Your task to perform on an android device: open a bookmark in the chrome app Image 0: 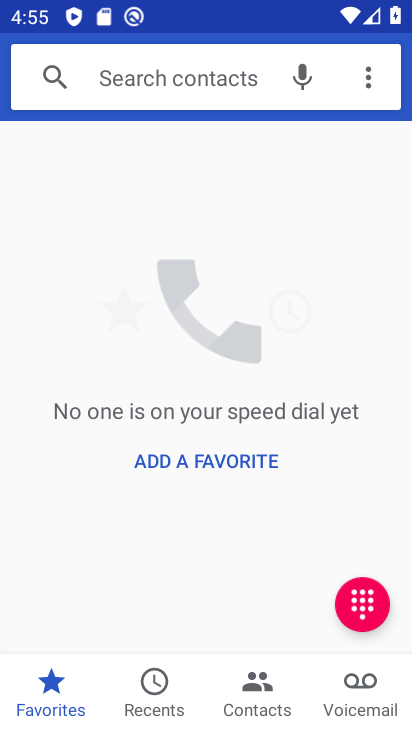
Step 0: press home button
Your task to perform on an android device: open a bookmark in the chrome app Image 1: 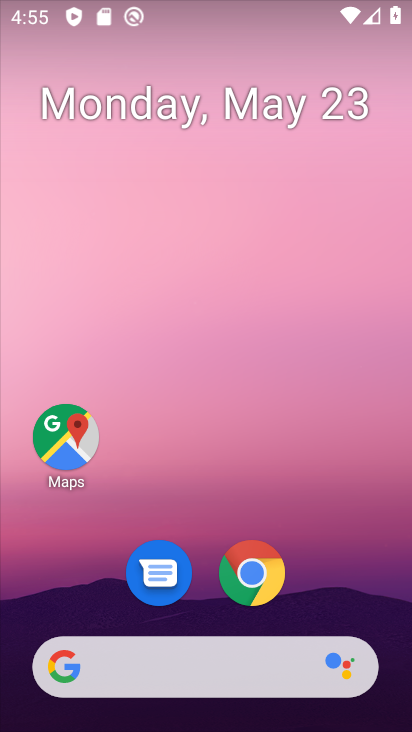
Step 1: click (252, 572)
Your task to perform on an android device: open a bookmark in the chrome app Image 2: 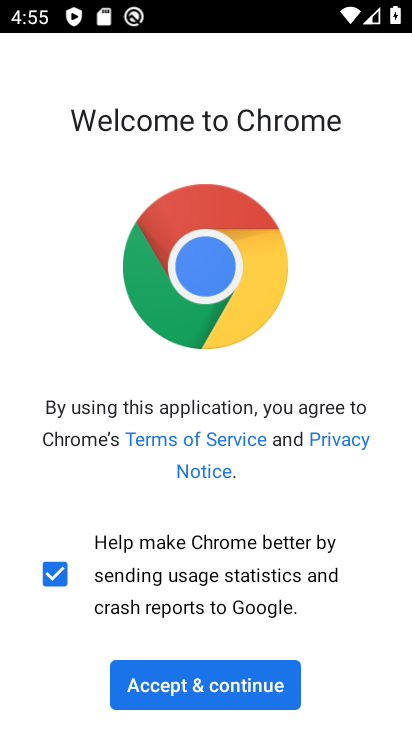
Step 2: click (249, 695)
Your task to perform on an android device: open a bookmark in the chrome app Image 3: 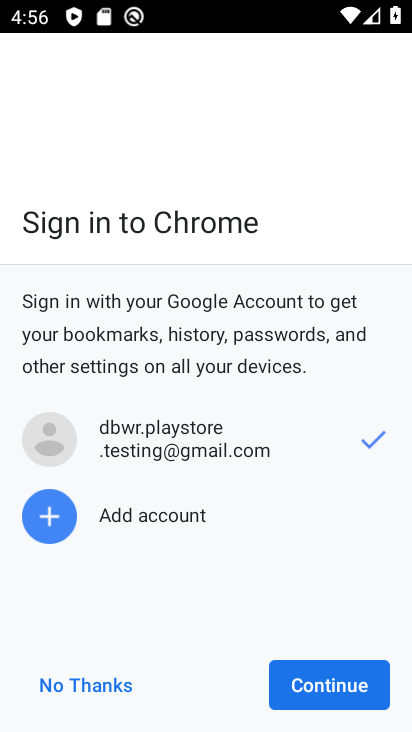
Step 3: click (328, 682)
Your task to perform on an android device: open a bookmark in the chrome app Image 4: 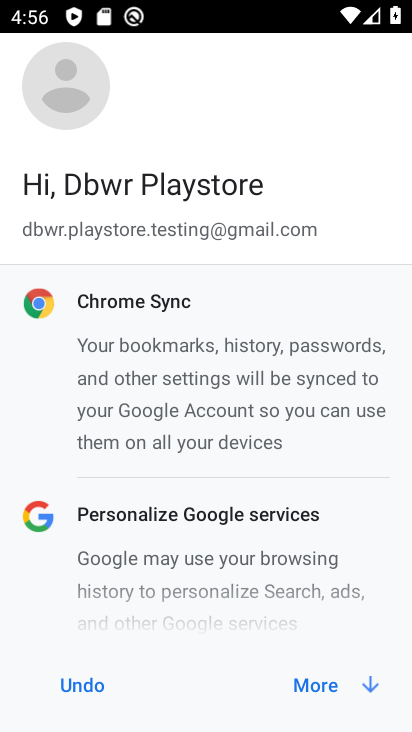
Step 4: click (308, 687)
Your task to perform on an android device: open a bookmark in the chrome app Image 5: 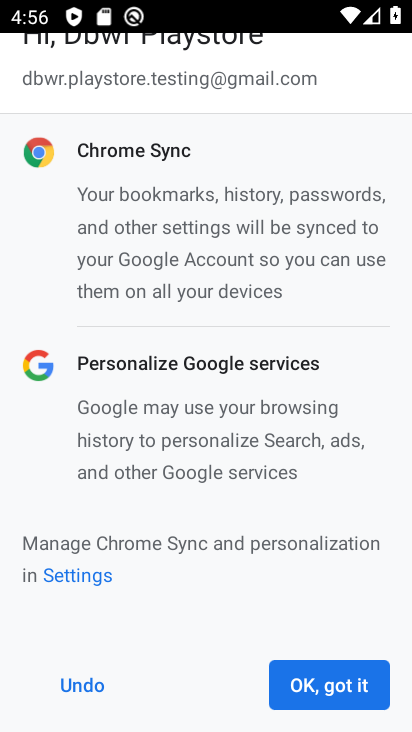
Step 5: click (308, 687)
Your task to perform on an android device: open a bookmark in the chrome app Image 6: 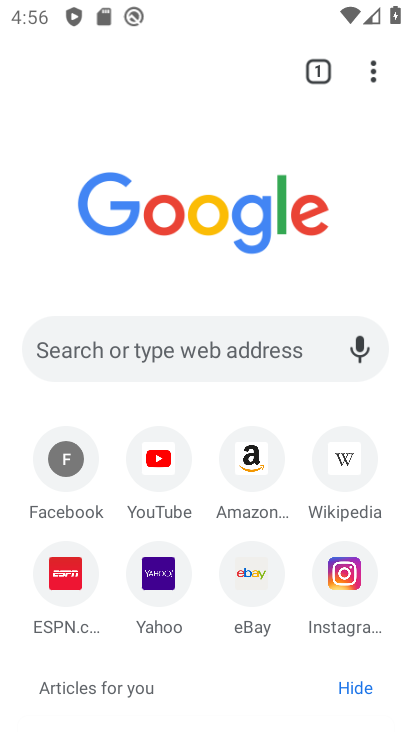
Step 6: click (371, 71)
Your task to perform on an android device: open a bookmark in the chrome app Image 7: 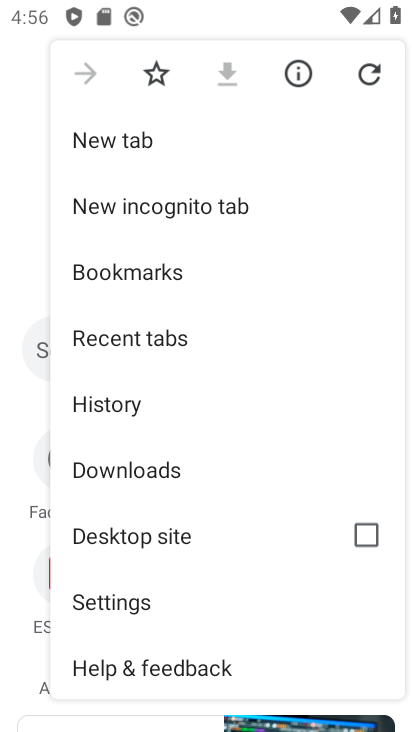
Step 7: click (160, 280)
Your task to perform on an android device: open a bookmark in the chrome app Image 8: 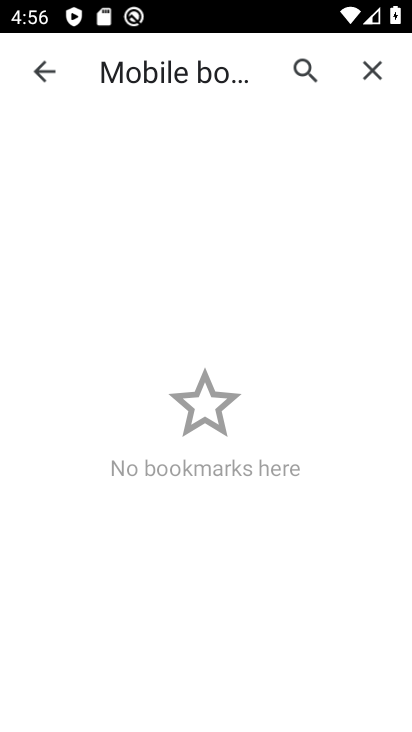
Step 8: task complete